Your task to perform on an android device: Open sound settings Image 0: 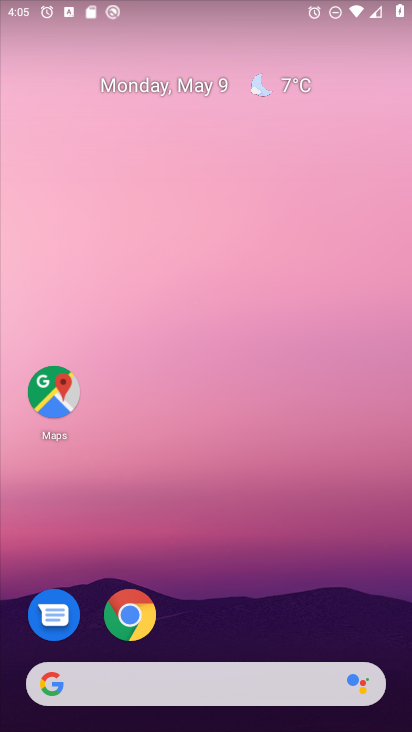
Step 0: drag from (350, 613) to (311, 7)
Your task to perform on an android device: Open sound settings Image 1: 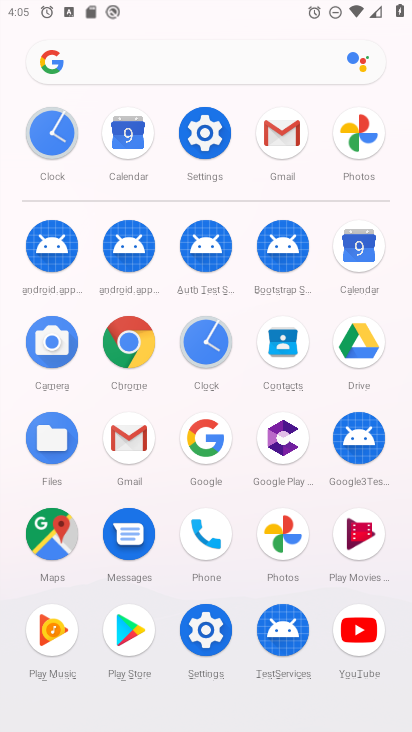
Step 1: click (202, 632)
Your task to perform on an android device: Open sound settings Image 2: 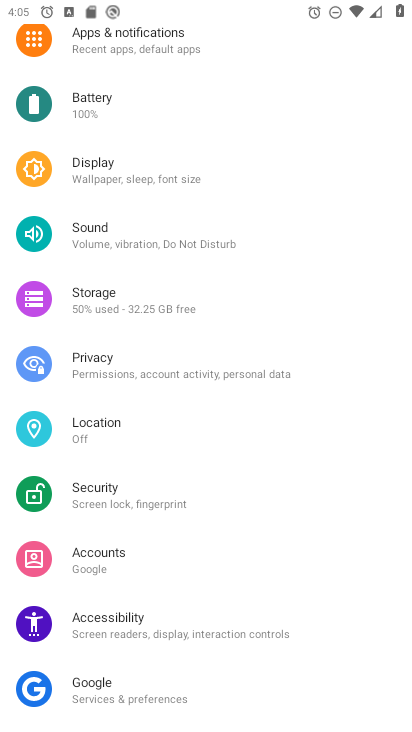
Step 2: click (94, 229)
Your task to perform on an android device: Open sound settings Image 3: 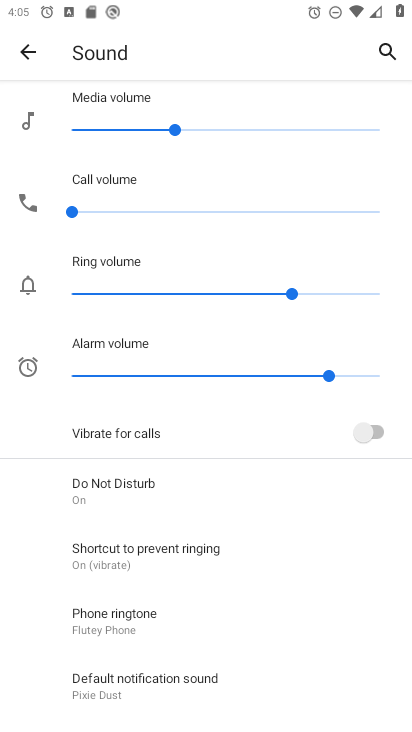
Step 3: drag from (237, 521) to (249, 214)
Your task to perform on an android device: Open sound settings Image 4: 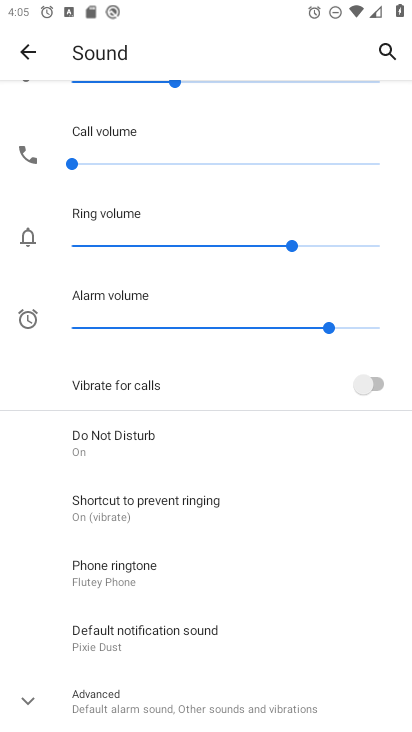
Step 4: click (24, 696)
Your task to perform on an android device: Open sound settings Image 5: 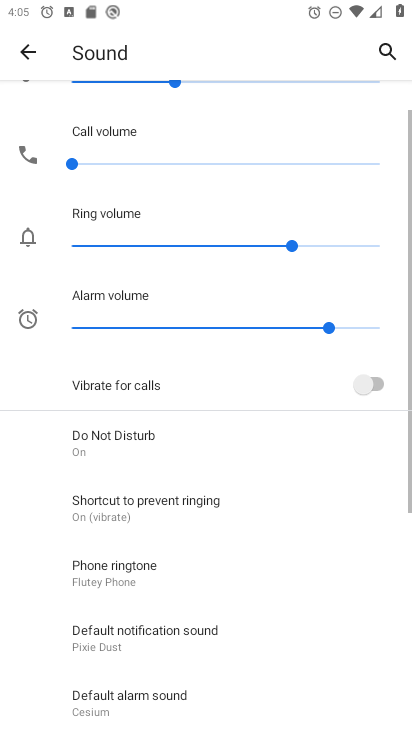
Step 5: task complete